Your task to perform on an android device: all mails in gmail Image 0: 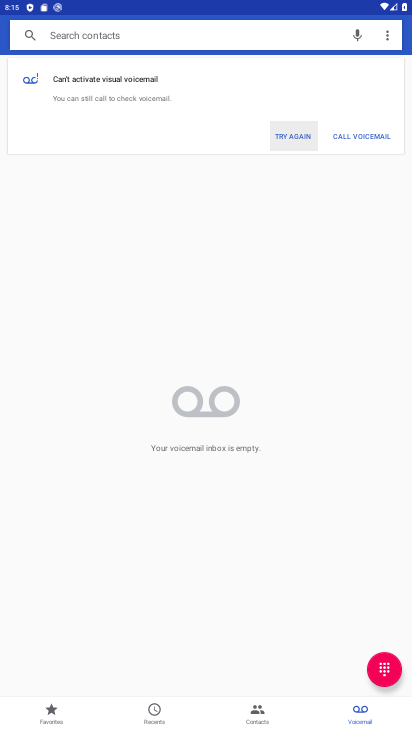
Step 0: press home button
Your task to perform on an android device: all mails in gmail Image 1: 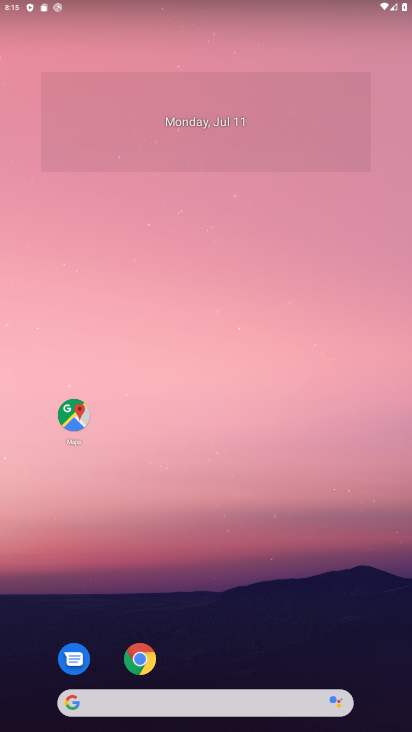
Step 1: drag from (5, 722) to (156, 30)
Your task to perform on an android device: all mails in gmail Image 2: 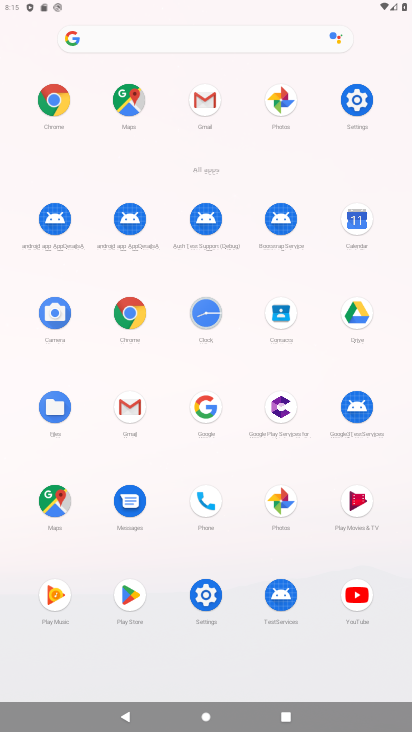
Step 2: click (127, 409)
Your task to perform on an android device: all mails in gmail Image 3: 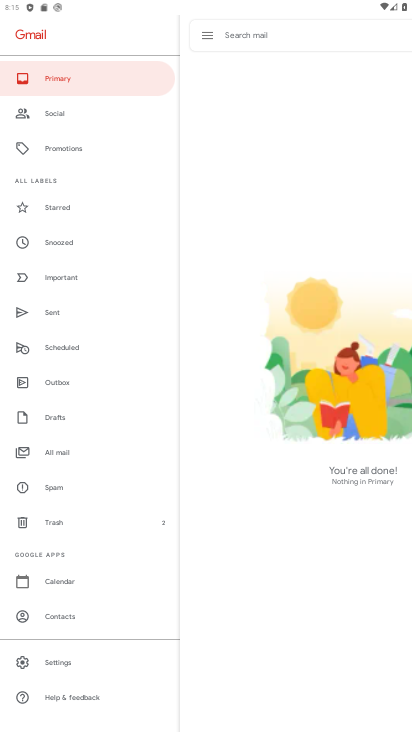
Step 3: click (52, 446)
Your task to perform on an android device: all mails in gmail Image 4: 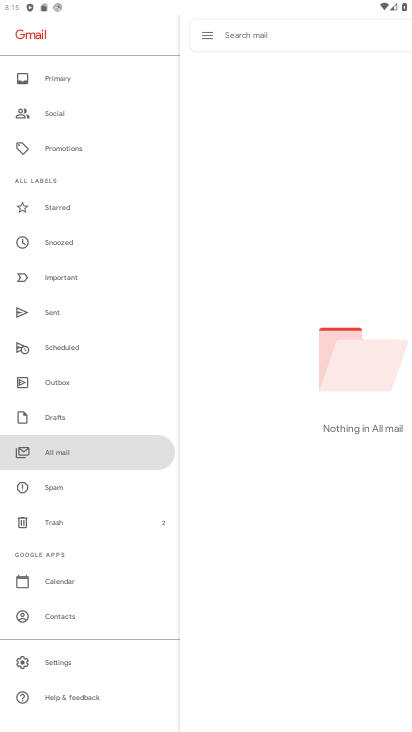
Step 4: click (62, 456)
Your task to perform on an android device: all mails in gmail Image 5: 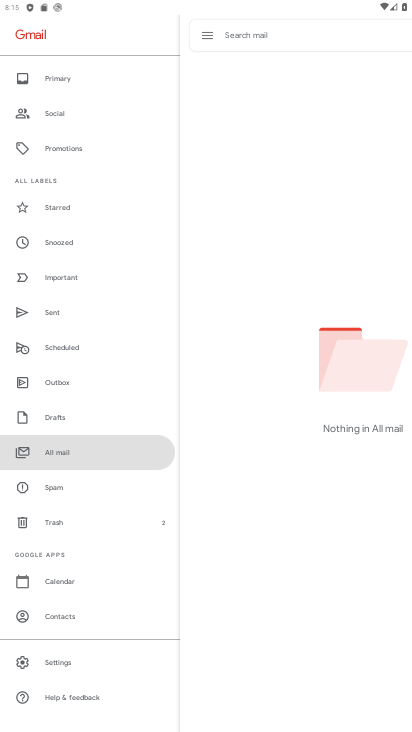
Step 5: task complete